Your task to perform on an android device: Open Google Image 0: 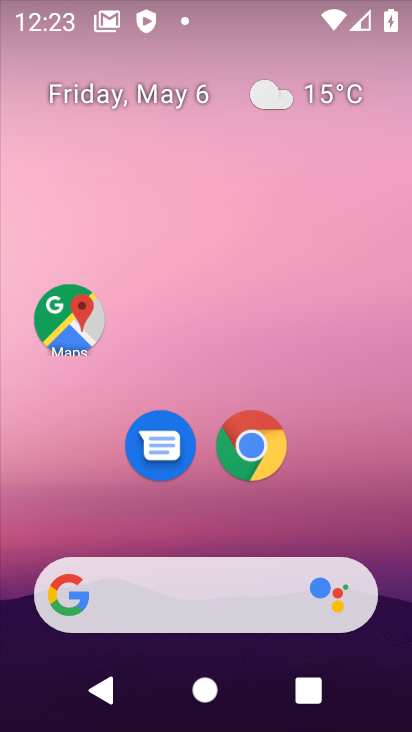
Step 0: drag from (362, 489) to (87, 63)
Your task to perform on an android device: Open Google Image 1: 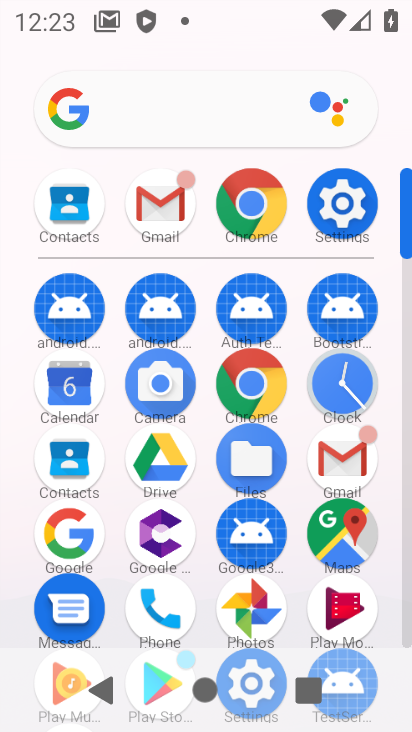
Step 1: click (66, 537)
Your task to perform on an android device: Open Google Image 2: 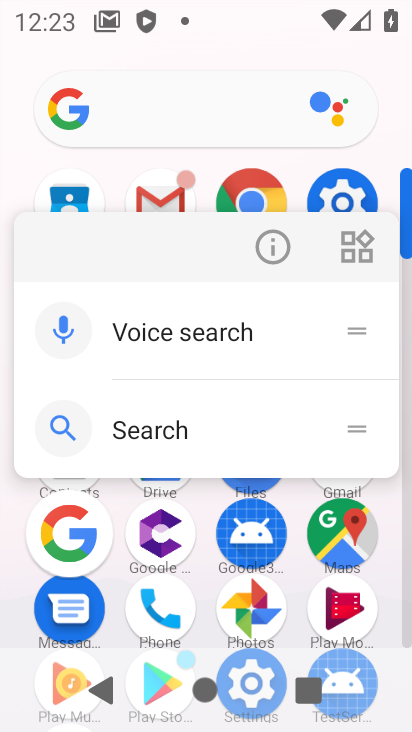
Step 2: click (63, 538)
Your task to perform on an android device: Open Google Image 3: 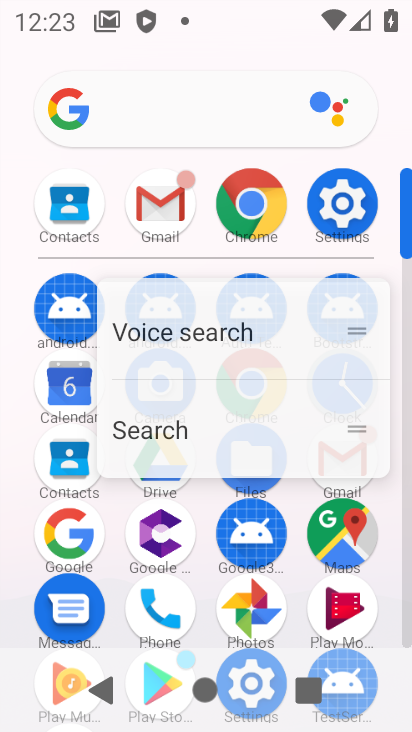
Step 3: click (63, 538)
Your task to perform on an android device: Open Google Image 4: 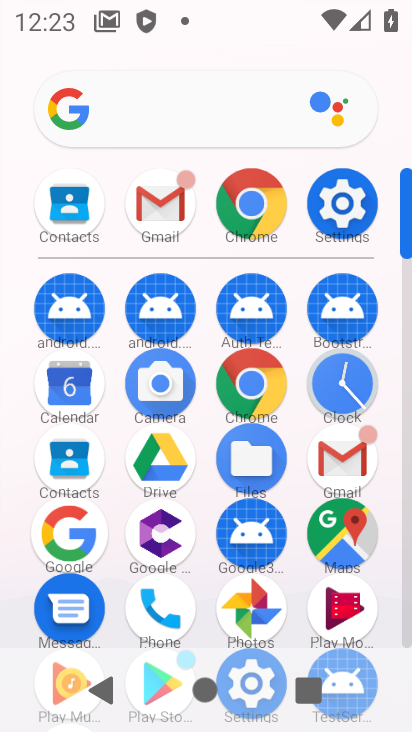
Step 4: click (75, 531)
Your task to perform on an android device: Open Google Image 5: 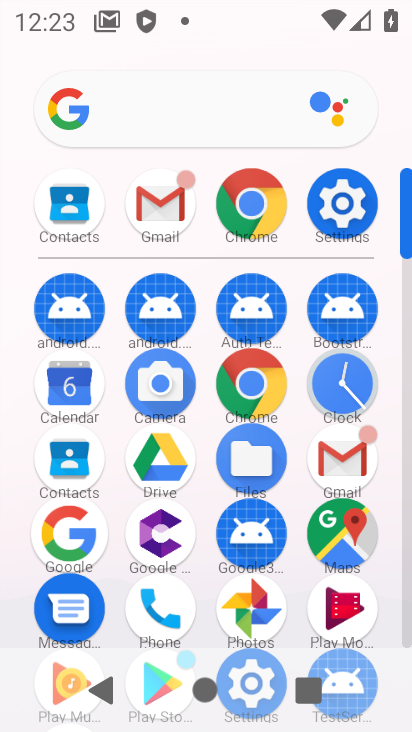
Step 5: click (79, 527)
Your task to perform on an android device: Open Google Image 6: 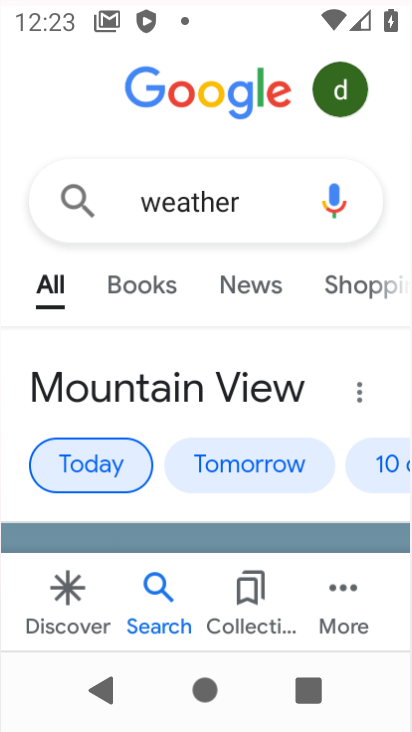
Step 6: click (79, 527)
Your task to perform on an android device: Open Google Image 7: 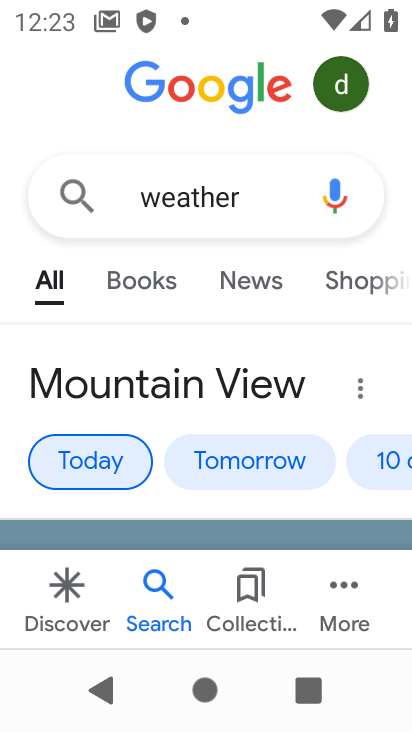
Step 7: click (79, 527)
Your task to perform on an android device: Open Google Image 8: 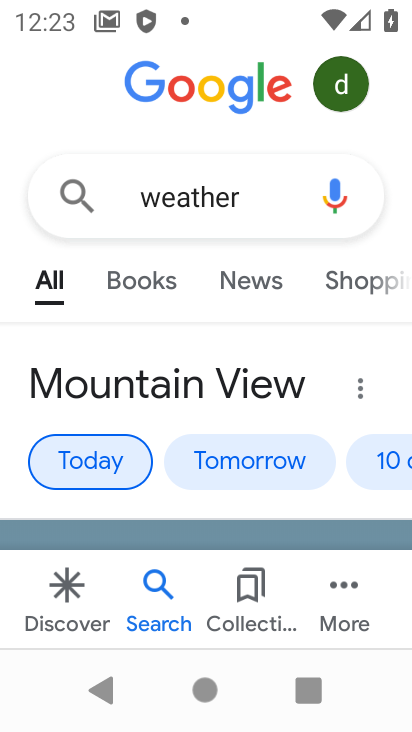
Step 8: click (259, 203)
Your task to perform on an android device: Open Google Image 9: 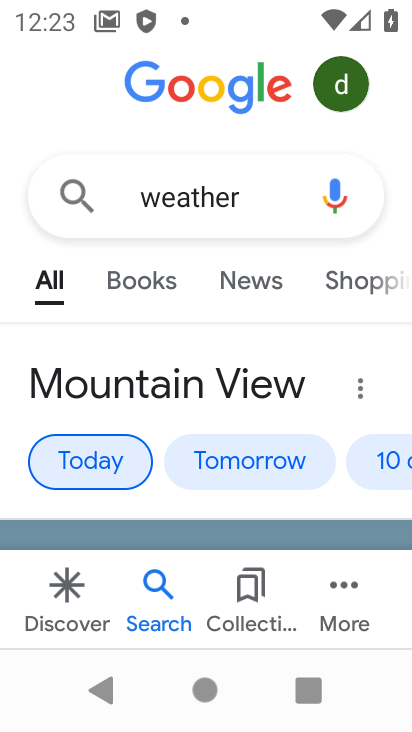
Step 9: click (259, 203)
Your task to perform on an android device: Open Google Image 10: 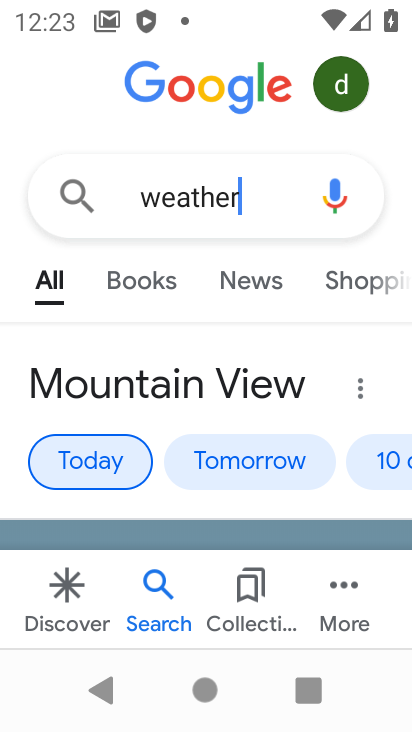
Step 10: click (259, 203)
Your task to perform on an android device: Open Google Image 11: 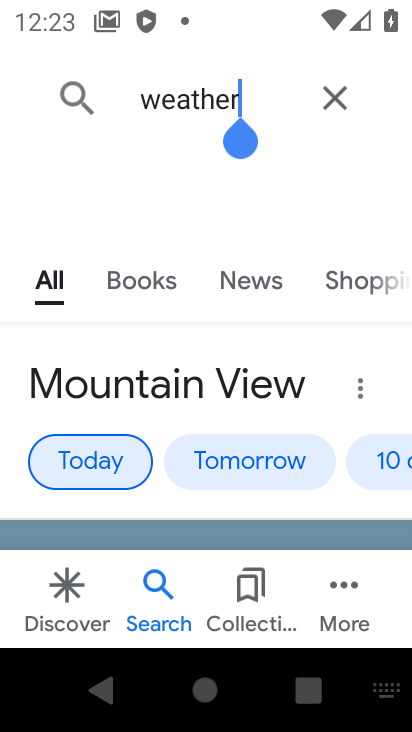
Step 11: click (254, 203)
Your task to perform on an android device: Open Google Image 12: 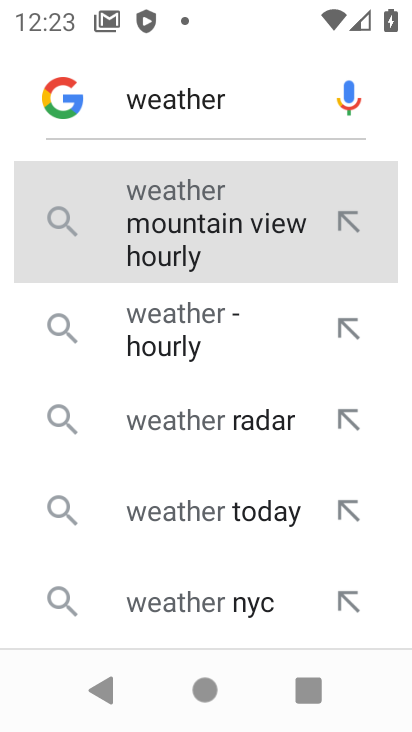
Step 12: click (254, 203)
Your task to perform on an android device: Open Google Image 13: 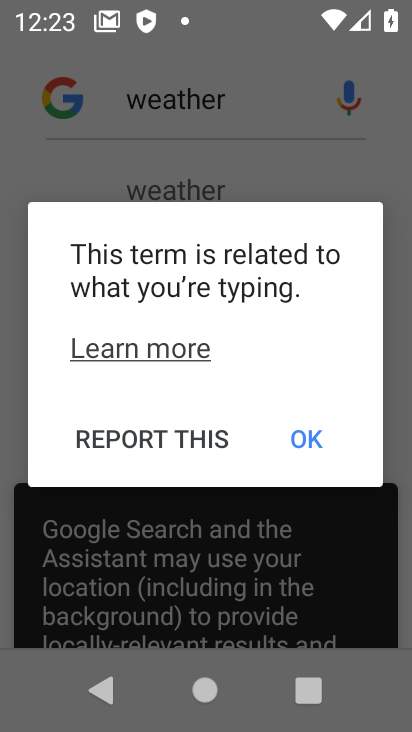
Step 13: click (351, 94)
Your task to perform on an android device: Open Google Image 14: 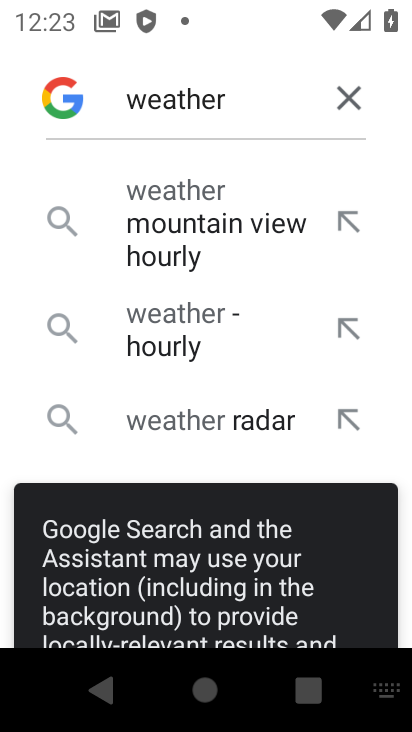
Step 14: click (245, 93)
Your task to perform on an android device: Open Google Image 15: 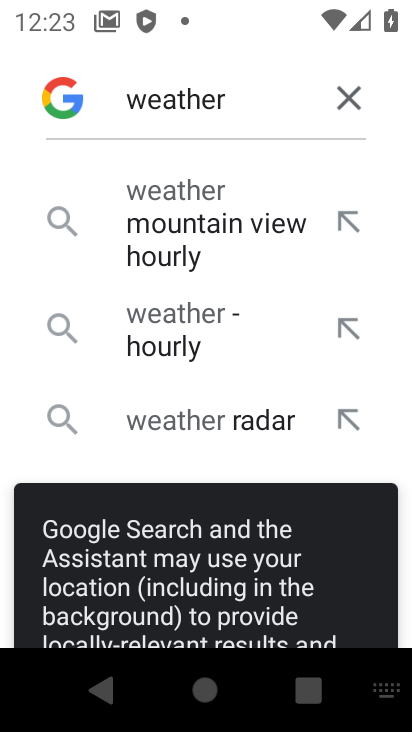
Step 15: click (245, 93)
Your task to perform on an android device: Open Google Image 16: 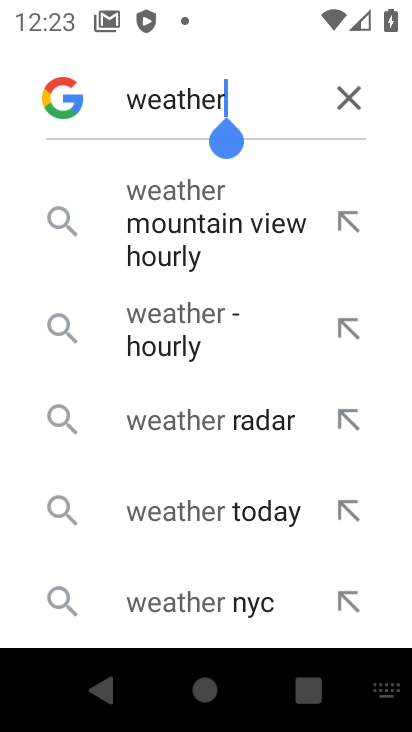
Step 16: click (245, 93)
Your task to perform on an android device: Open Google Image 17: 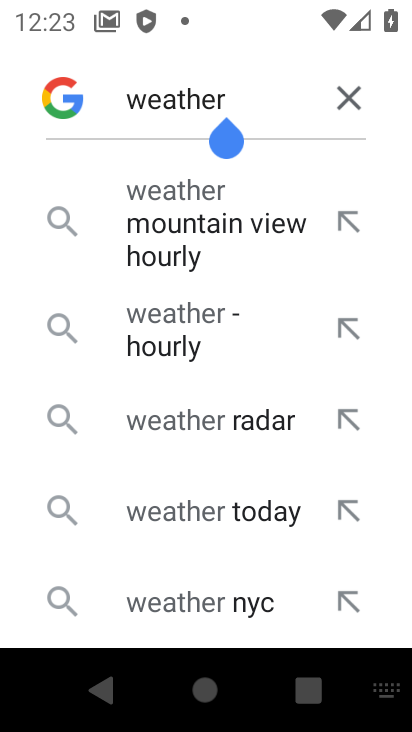
Step 17: click (365, 113)
Your task to perform on an android device: Open Google Image 18: 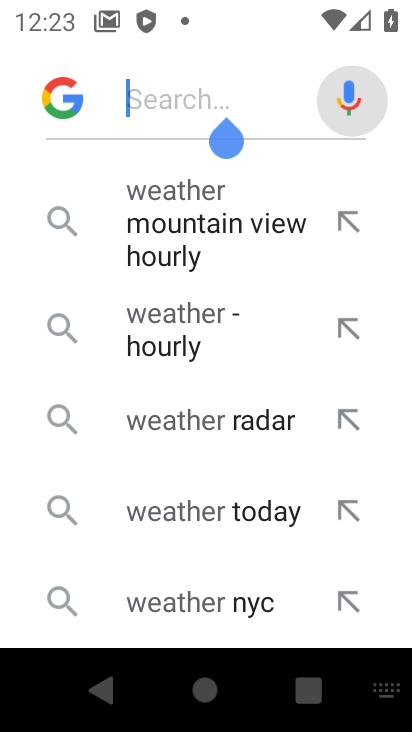
Step 18: click (364, 101)
Your task to perform on an android device: Open Google Image 19: 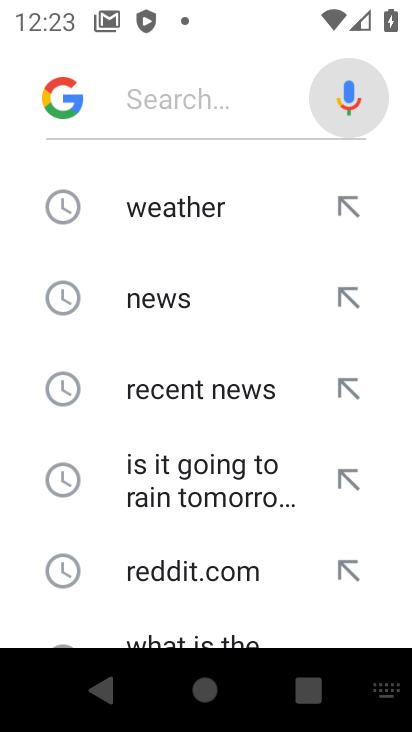
Step 19: click (354, 105)
Your task to perform on an android device: Open Google Image 20: 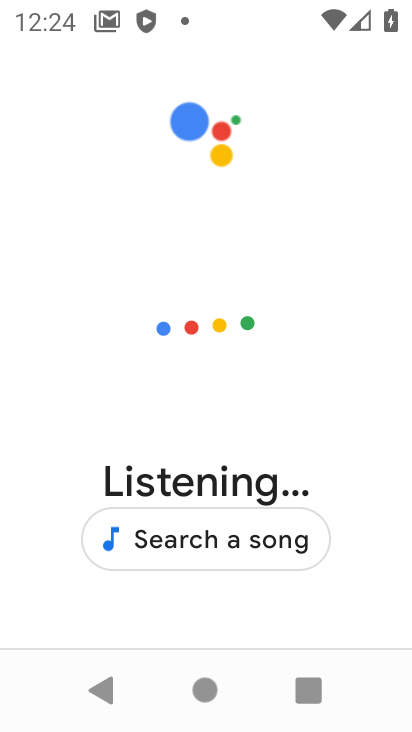
Step 20: click (363, 500)
Your task to perform on an android device: Open Google Image 21: 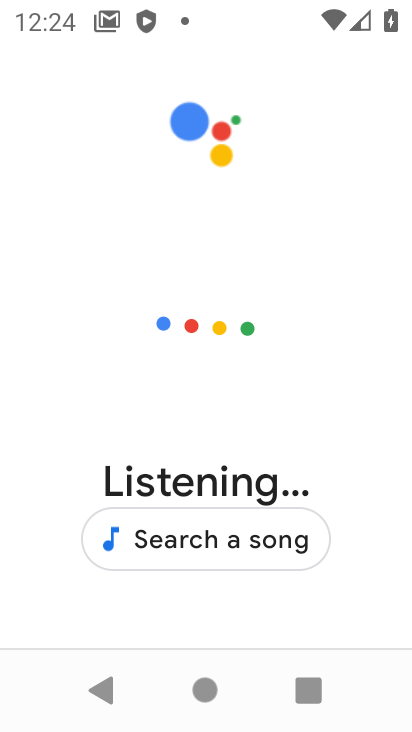
Step 21: click (350, 389)
Your task to perform on an android device: Open Google Image 22: 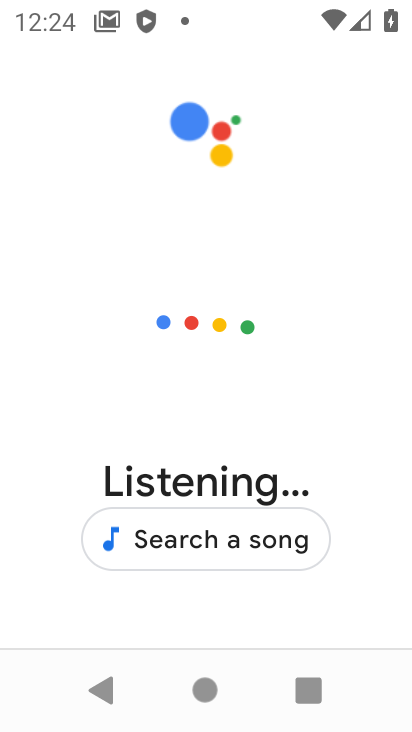
Step 22: click (359, 399)
Your task to perform on an android device: Open Google Image 23: 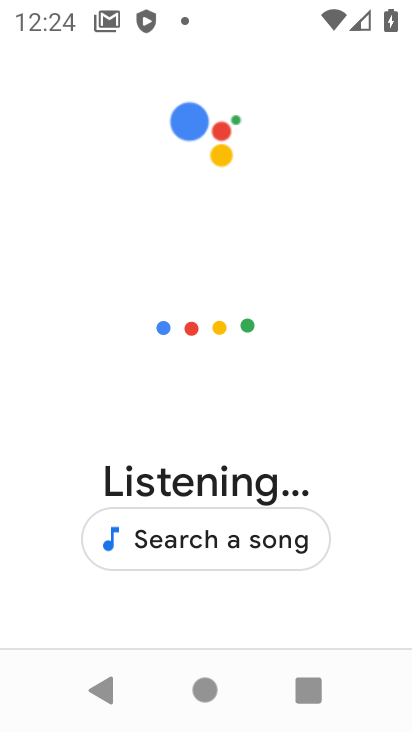
Step 23: click (356, 424)
Your task to perform on an android device: Open Google Image 24: 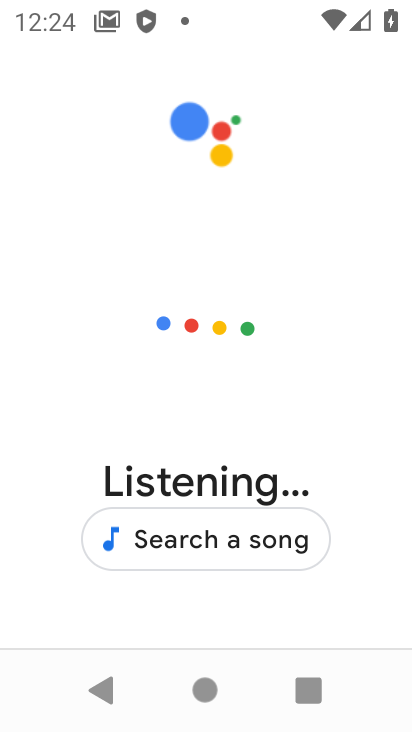
Step 24: click (346, 393)
Your task to perform on an android device: Open Google Image 25: 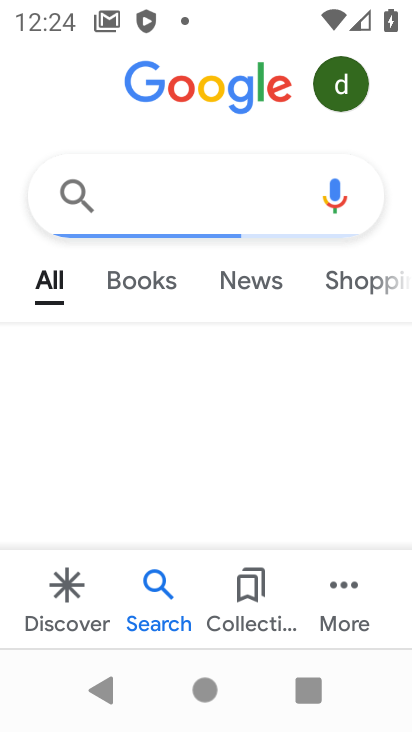
Step 25: click (333, 378)
Your task to perform on an android device: Open Google Image 26: 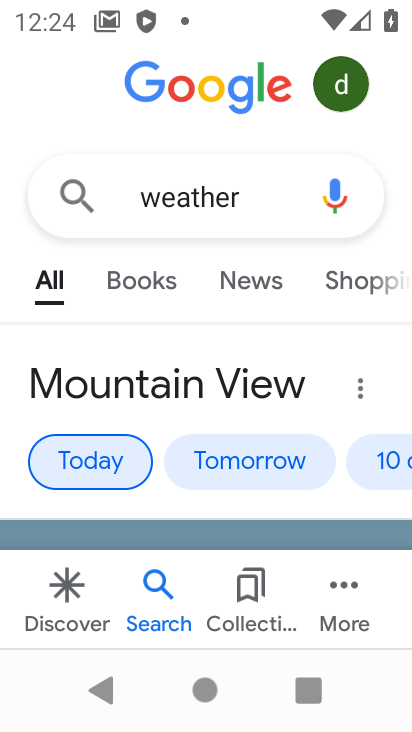
Step 26: task complete